Your task to perform on an android device: turn pop-ups on in chrome Image 0: 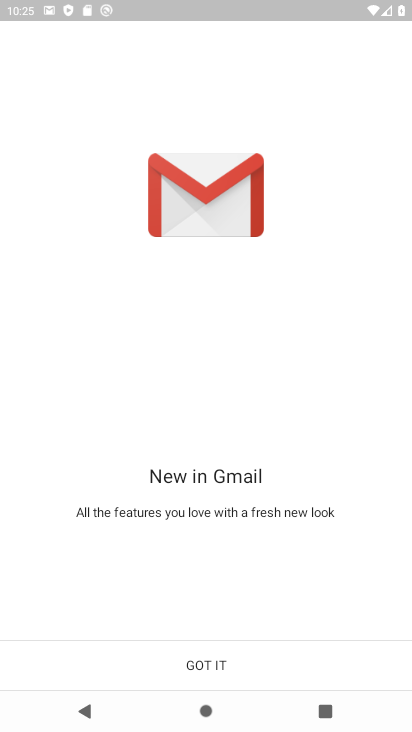
Step 0: drag from (226, 494) to (257, 221)
Your task to perform on an android device: turn pop-ups on in chrome Image 1: 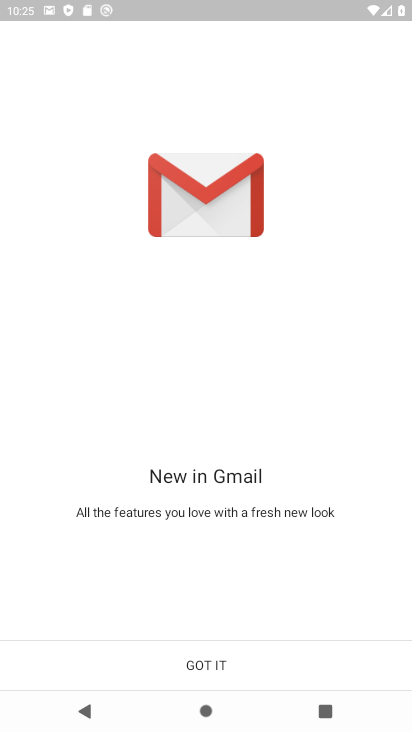
Step 1: press home button
Your task to perform on an android device: turn pop-ups on in chrome Image 2: 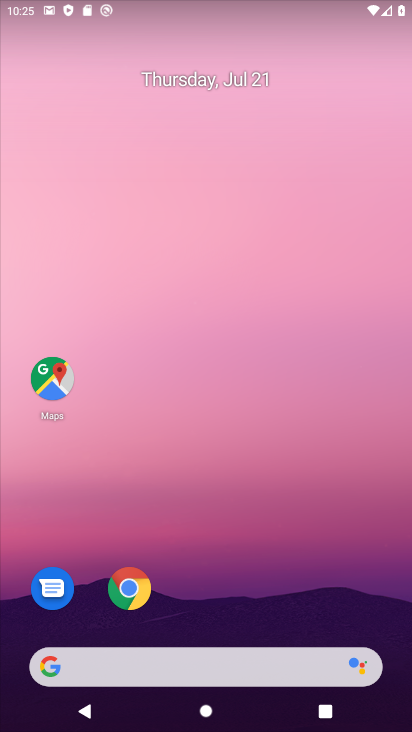
Step 2: drag from (183, 563) to (261, 177)
Your task to perform on an android device: turn pop-ups on in chrome Image 3: 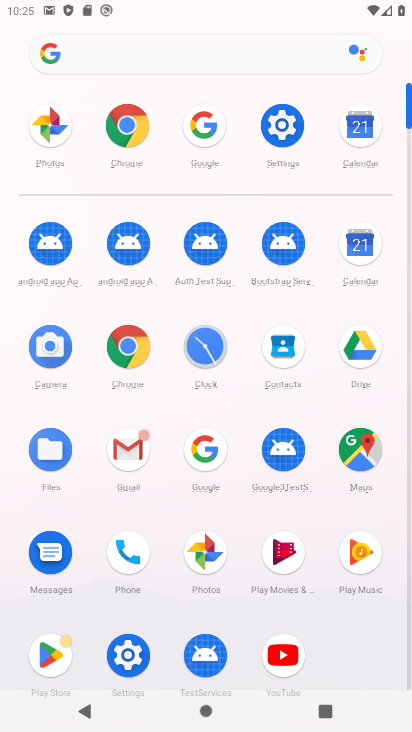
Step 3: click (117, 351)
Your task to perform on an android device: turn pop-ups on in chrome Image 4: 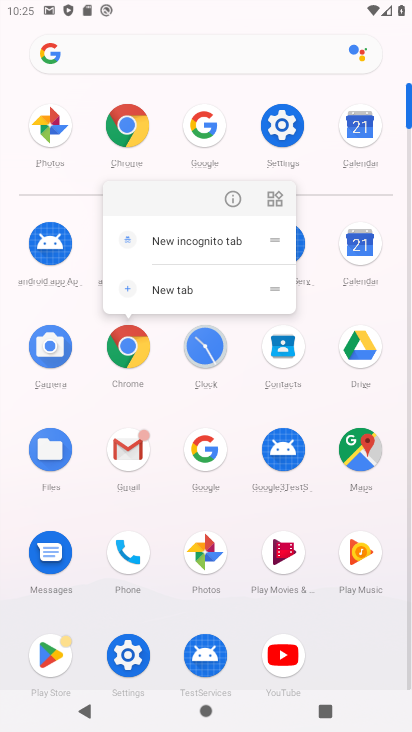
Step 4: click (233, 192)
Your task to perform on an android device: turn pop-ups on in chrome Image 5: 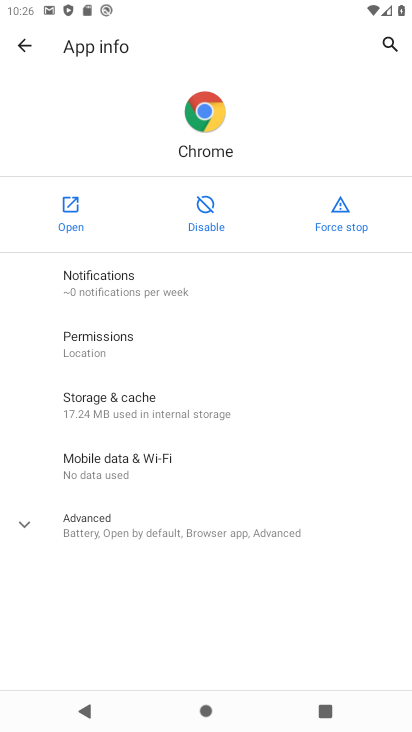
Step 5: click (65, 212)
Your task to perform on an android device: turn pop-ups on in chrome Image 6: 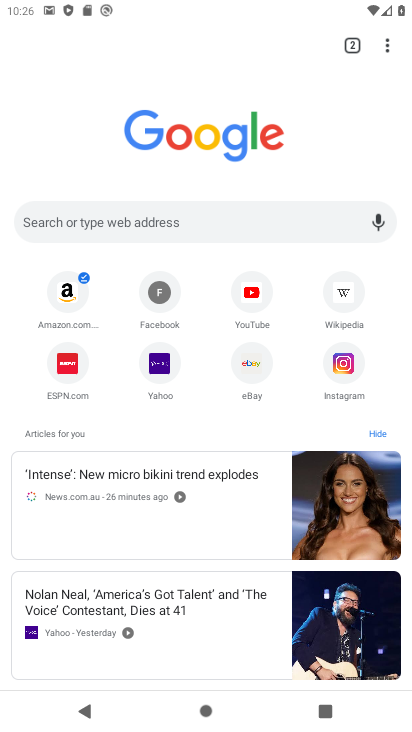
Step 6: drag from (388, 45) to (241, 370)
Your task to perform on an android device: turn pop-ups on in chrome Image 7: 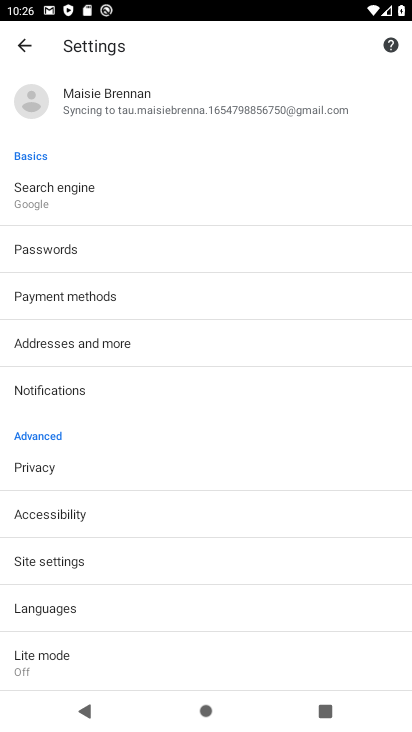
Step 7: click (110, 567)
Your task to perform on an android device: turn pop-ups on in chrome Image 8: 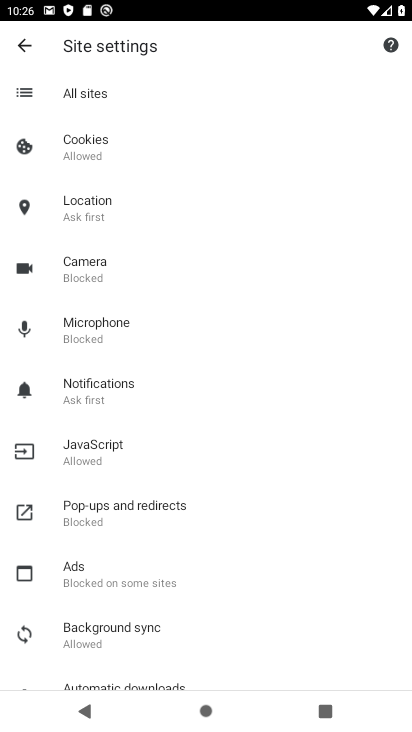
Step 8: click (149, 518)
Your task to perform on an android device: turn pop-ups on in chrome Image 9: 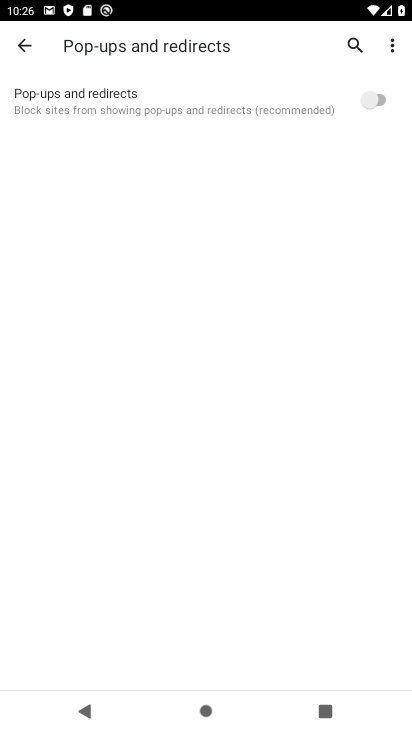
Step 9: click (366, 104)
Your task to perform on an android device: turn pop-ups on in chrome Image 10: 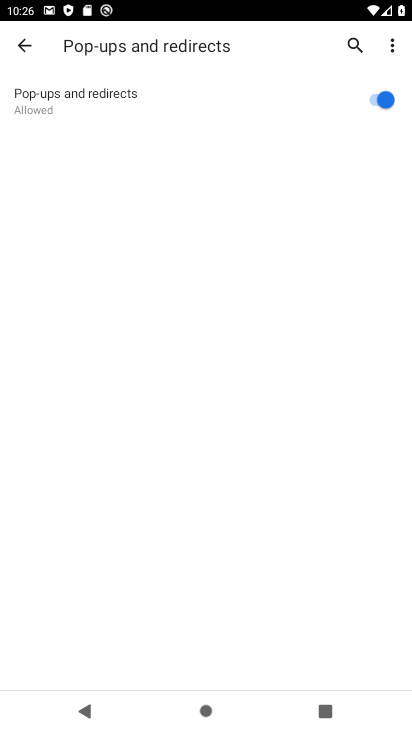
Step 10: task complete